Your task to perform on an android device: add a contact Image 0: 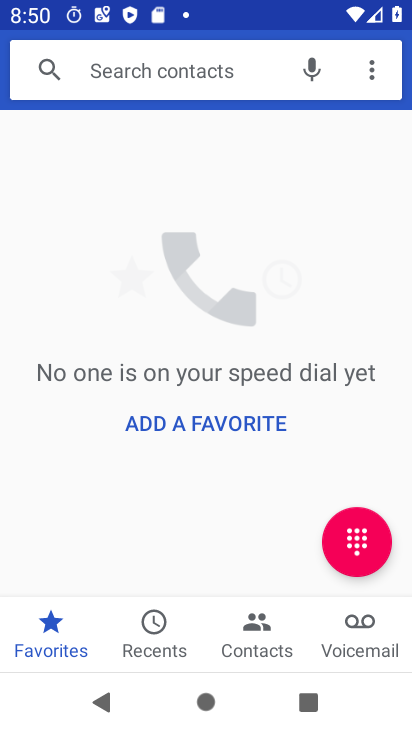
Step 0: press home button
Your task to perform on an android device: add a contact Image 1: 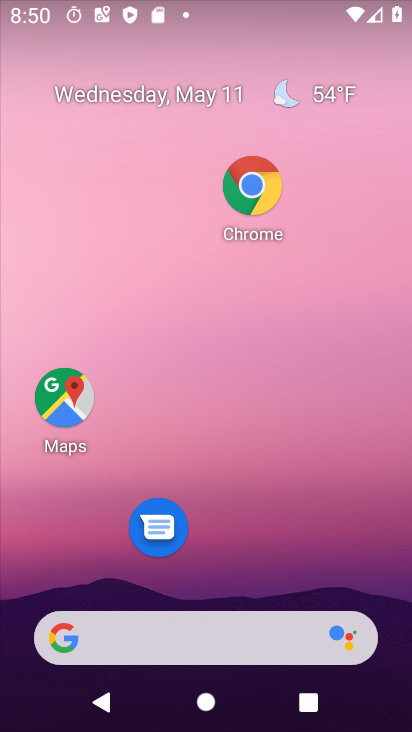
Step 1: drag from (259, 558) to (318, 48)
Your task to perform on an android device: add a contact Image 2: 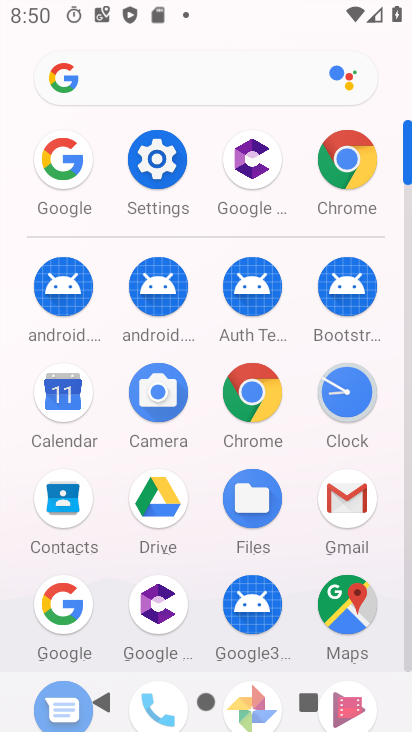
Step 2: click (60, 493)
Your task to perform on an android device: add a contact Image 3: 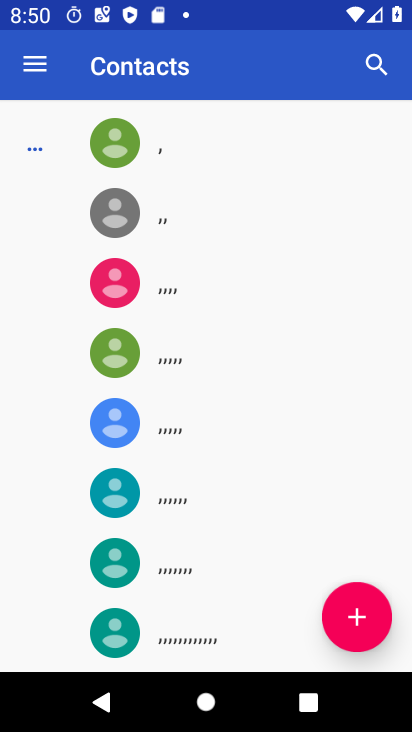
Step 3: click (358, 615)
Your task to perform on an android device: add a contact Image 4: 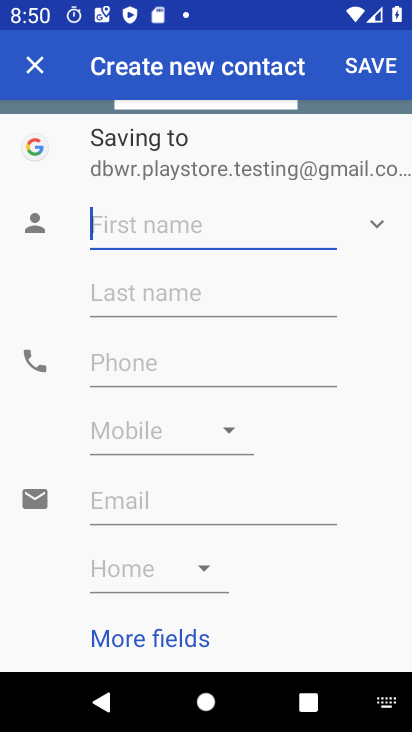
Step 4: type "gg"
Your task to perform on an android device: add a contact Image 5: 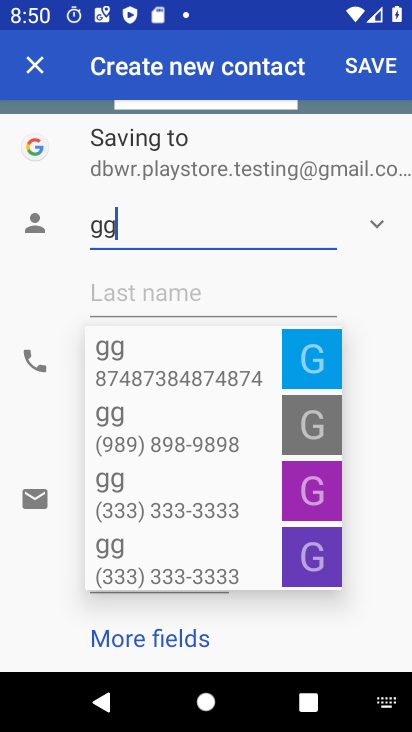
Step 5: click (381, 67)
Your task to perform on an android device: add a contact Image 6: 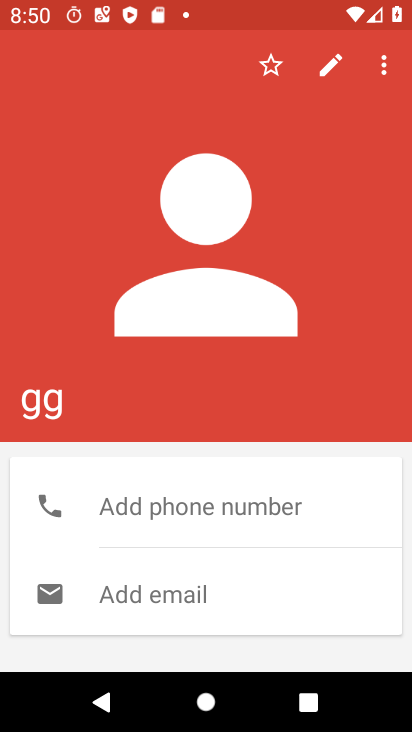
Step 6: task complete